Your task to perform on an android device: make emails show in primary in the gmail app Image 0: 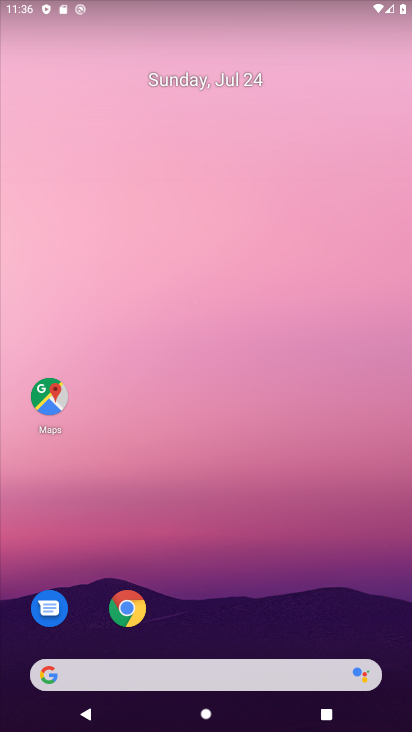
Step 0: press home button
Your task to perform on an android device: make emails show in primary in the gmail app Image 1: 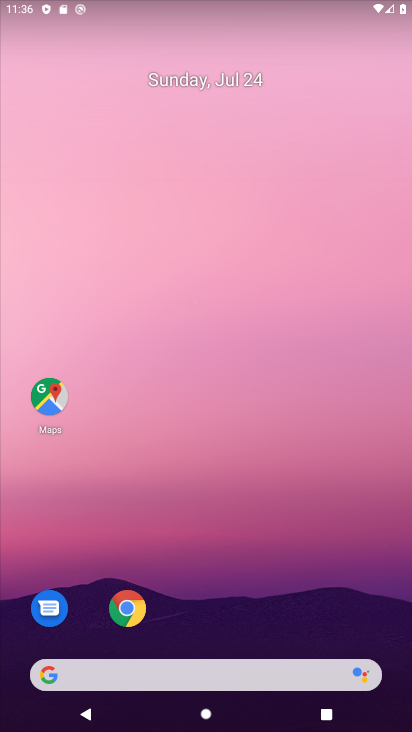
Step 1: drag from (39, 502) to (211, 153)
Your task to perform on an android device: make emails show in primary in the gmail app Image 2: 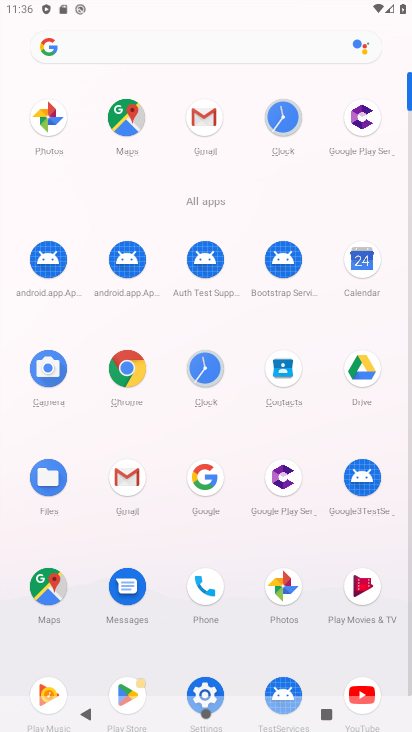
Step 2: click (221, 123)
Your task to perform on an android device: make emails show in primary in the gmail app Image 3: 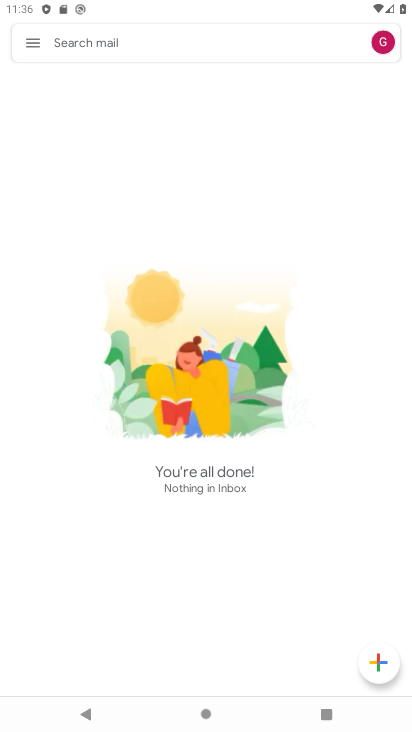
Step 3: click (19, 41)
Your task to perform on an android device: make emails show in primary in the gmail app Image 4: 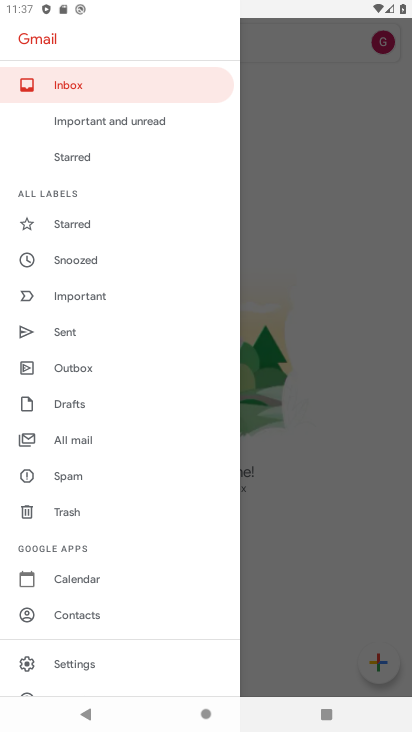
Step 4: task complete